Your task to perform on an android device: Open Google Maps and go to "Timeline" Image 0: 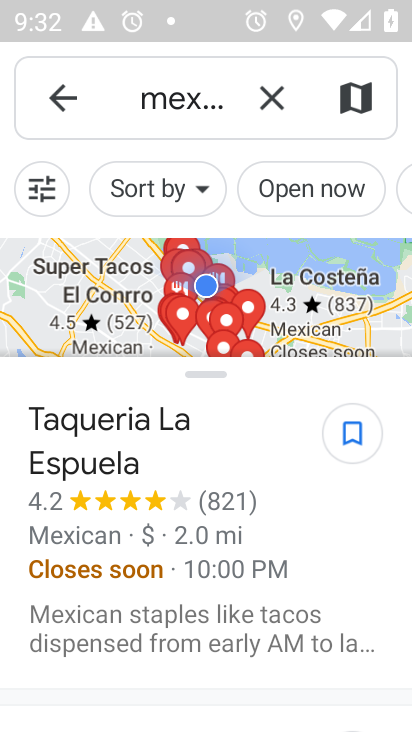
Step 0: click (68, 96)
Your task to perform on an android device: Open Google Maps and go to "Timeline" Image 1: 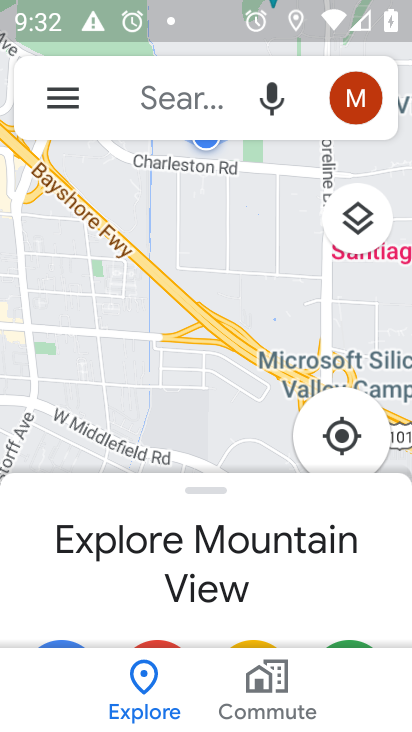
Step 1: click (51, 96)
Your task to perform on an android device: Open Google Maps and go to "Timeline" Image 2: 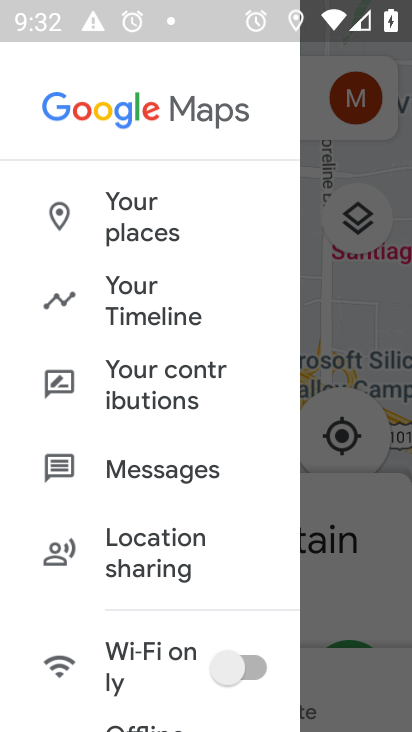
Step 2: click (137, 295)
Your task to perform on an android device: Open Google Maps and go to "Timeline" Image 3: 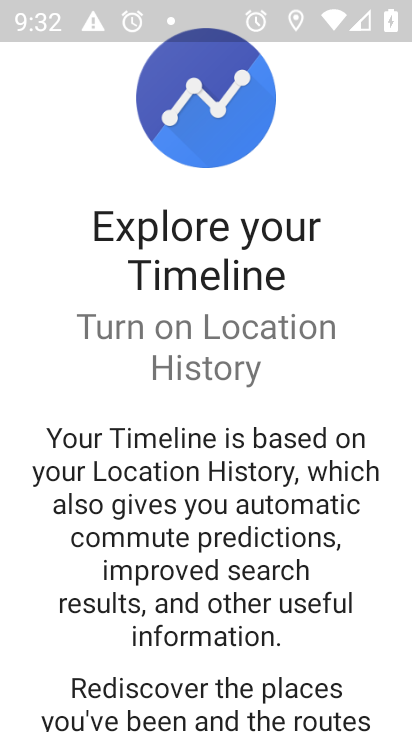
Step 3: drag from (259, 613) to (311, 158)
Your task to perform on an android device: Open Google Maps and go to "Timeline" Image 4: 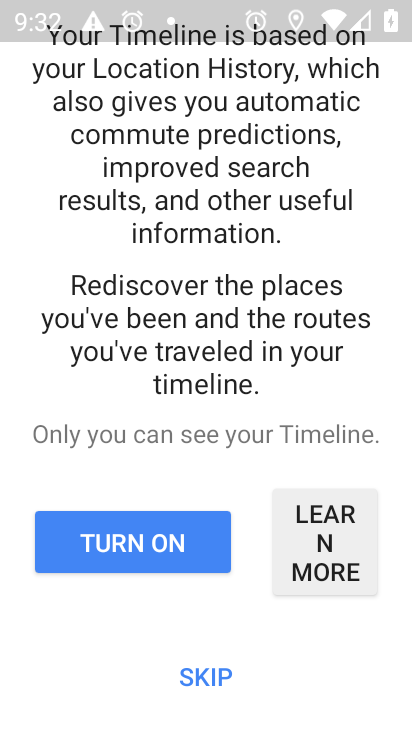
Step 4: click (211, 675)
Your task to perform on an android device: Open Google Maps and go to "Timeline" Image 5: 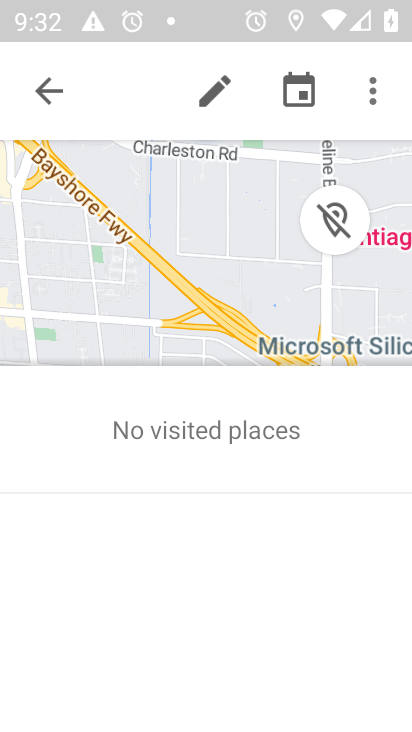
Step 5: task complete